Your task to perform on an android device: Open Wikipedia Image 0: 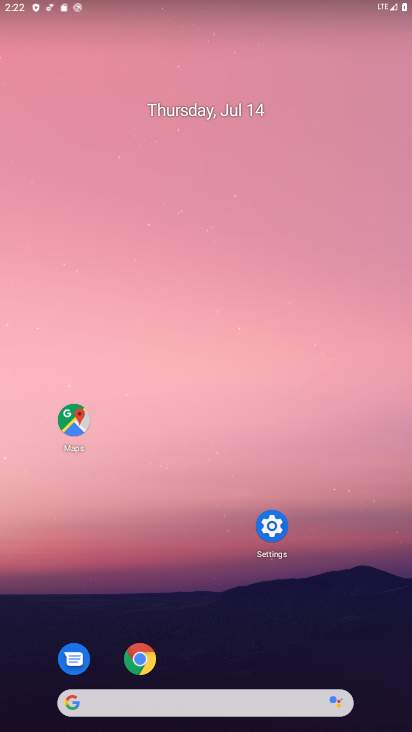
Step 0: click (130, 665)
Your task to perform on an android device: Open Wikipedia Image 1: 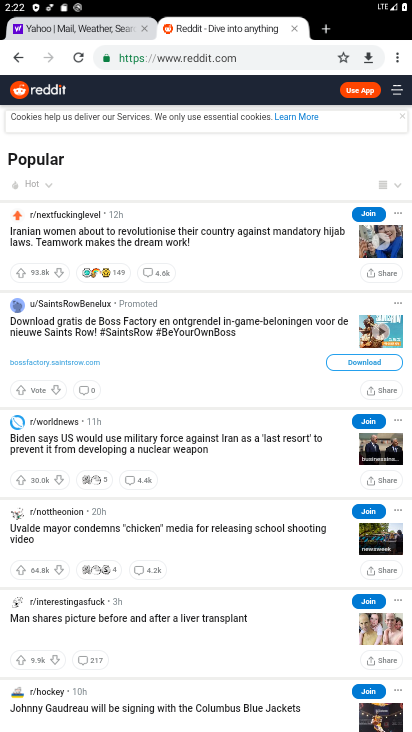
Step 1: click (397, 65)
Your task to perform on an android device: Open Wikipedia Image 2: 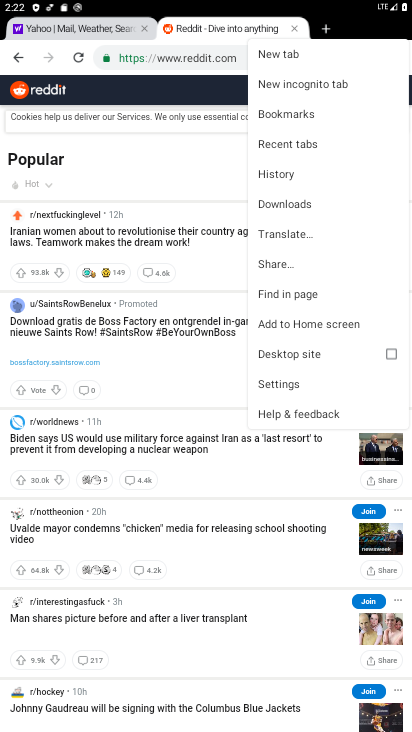
Step 2: click (271, 54)
Your task to perform on an android device: Open Wikipedia Image 3: 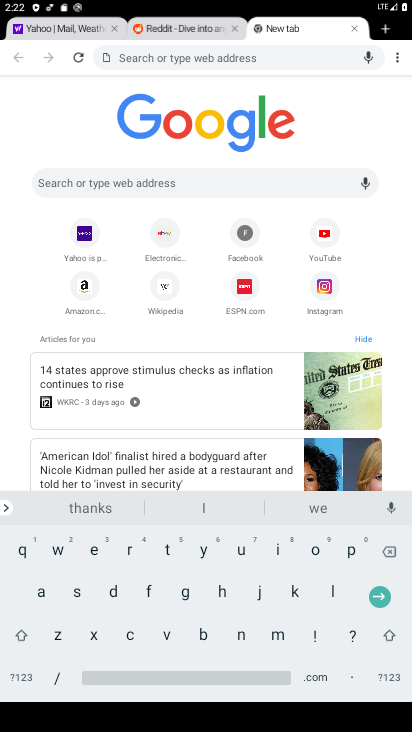
Step 3: click (169, 297)
Your task to perform on an android device: Open Wikipedia Image 4: 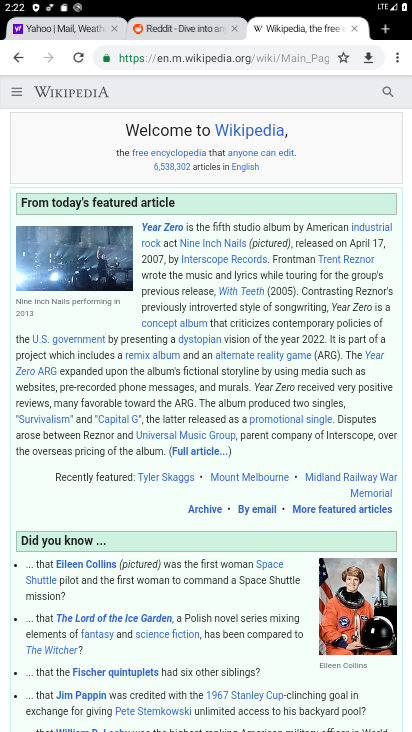
Step 4: task complete